Your task to perform on an android device: stop showing notifications on the lock screen Image 0: 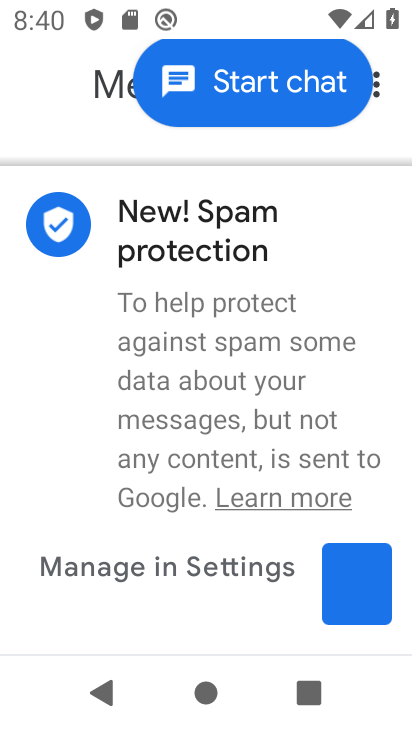
Step 0: press home button
Your task to perform on an android device: stop showing notifications on the lock screen Image 1: 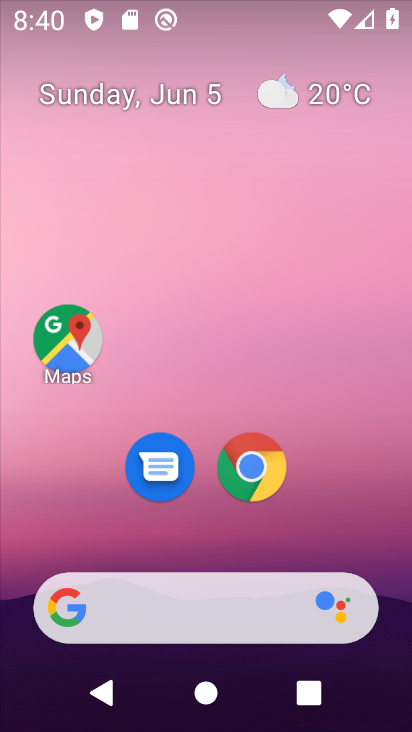
Step 1: drag from (351, 512) to (345, 0)
Your task to perform on an android device: stop showing notifications on the lock screen Image 2: 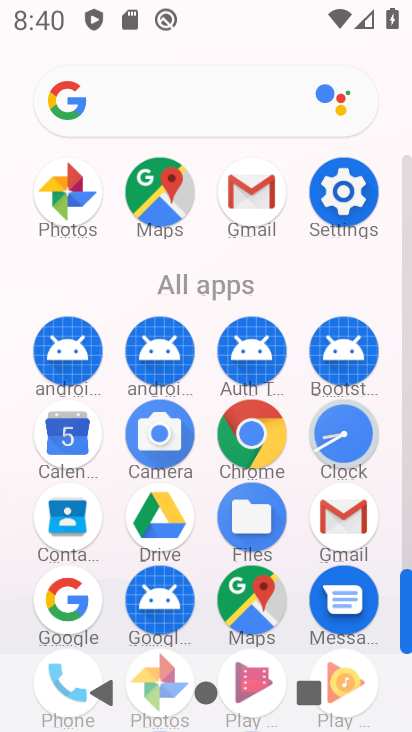
Step 2: click (337, 192)
Your task to perform on an android device: stop showing notifications on the lock screen Image 3: 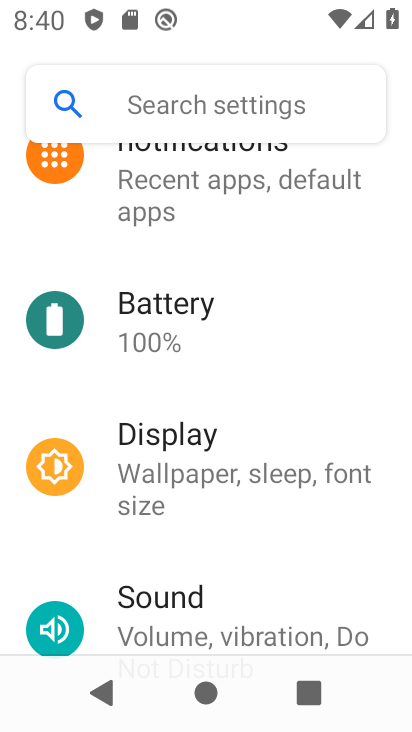
Step 3: drag from (206, 273) to (180, 602)
Your task to perform on an android device: stop showing notifications on the lock screen Image 4: 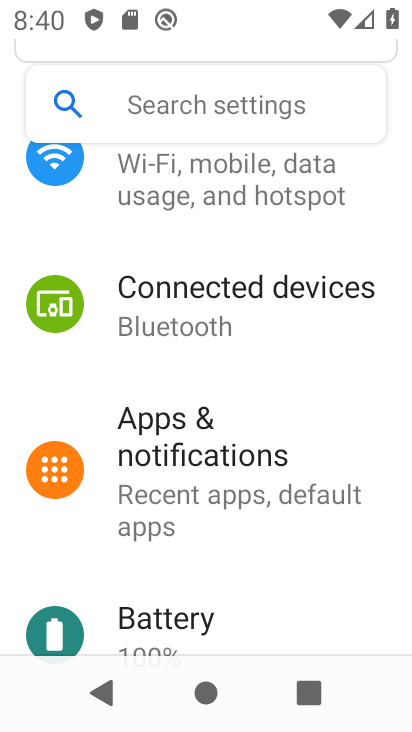
Step 4: click (183, 434)
Your task to perform on an android device: stop showing notifications on the lock screen Image 5: 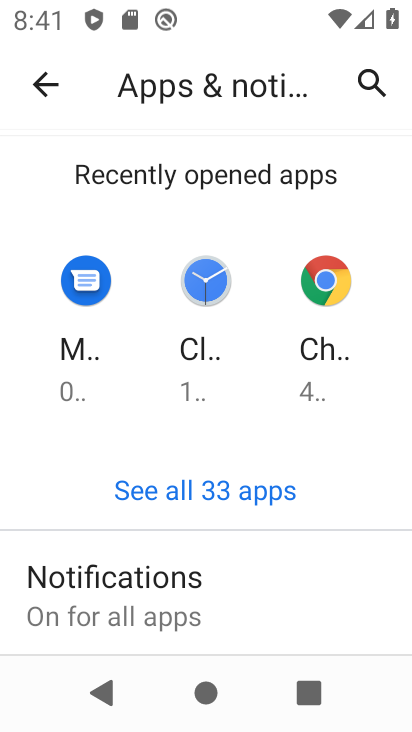
Step 5: click (151, 598)
Your task to perform on an android device: stop showing notifications on the lock screen Image 6: 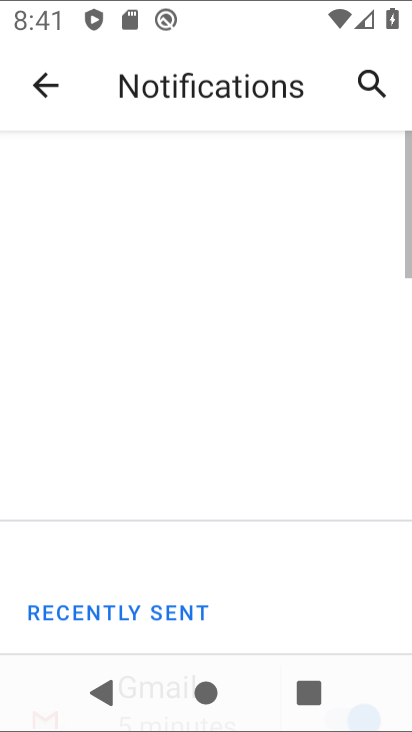
Step 6: drag from (156, 606) to (187, 176)
Your task to perform on an android device: stop showing notifications on the lock screen Image 7: 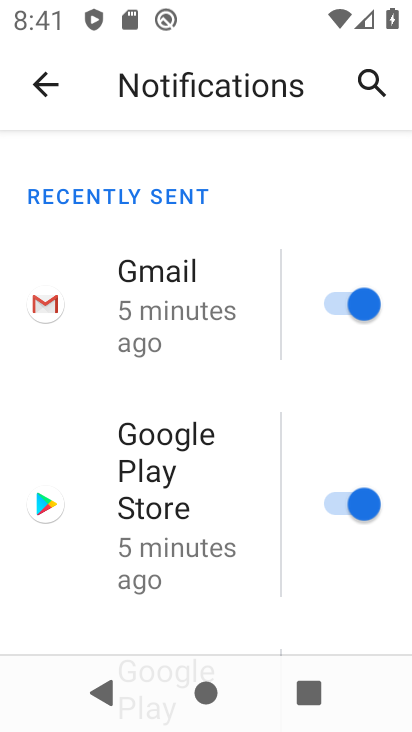
Step 7: drag from (94, 609) to (178, 10)
Your task to perform on an android device: stop showing notifications on the lock screen Image 8: 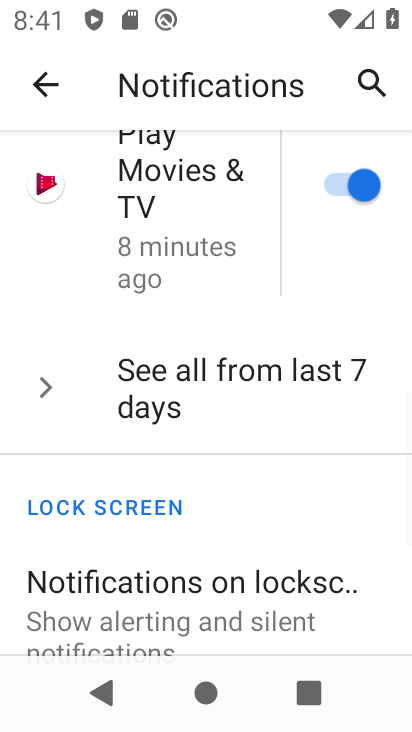
Step 8: drag from (147, 518) to (149, 164)
Your task to perform on an android device: stop showing notifications on the lock screen Image 9: 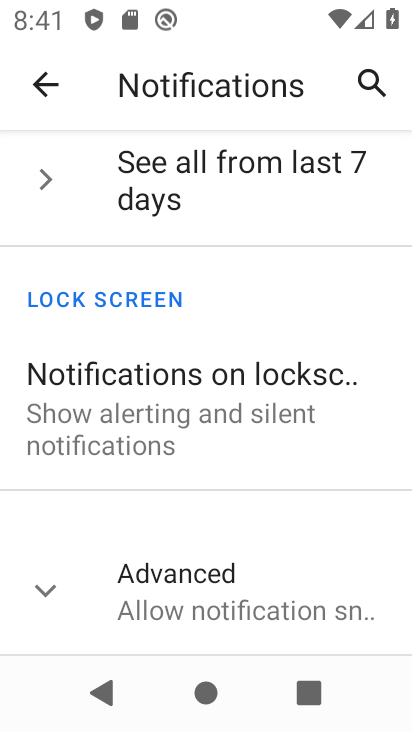
Step 9: click (191, 442)
Your task to perform on an android device: stop showing notifications on the lock screen Image 10: 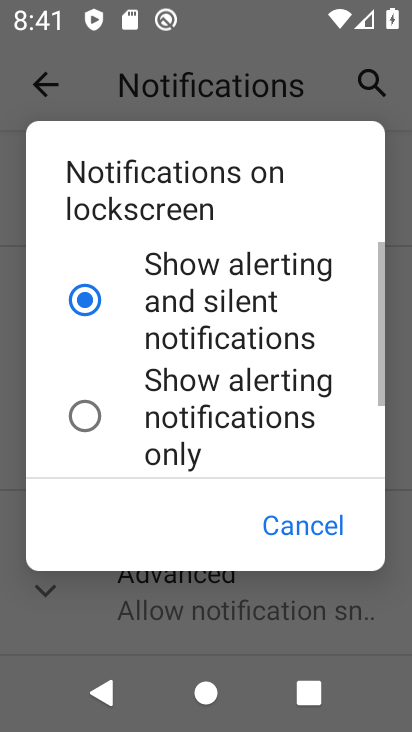
Step 10: drag from (220, 422) to (210, 115)
Your task to perform on an android device: stop showing notifications on the lock screen Image 11: 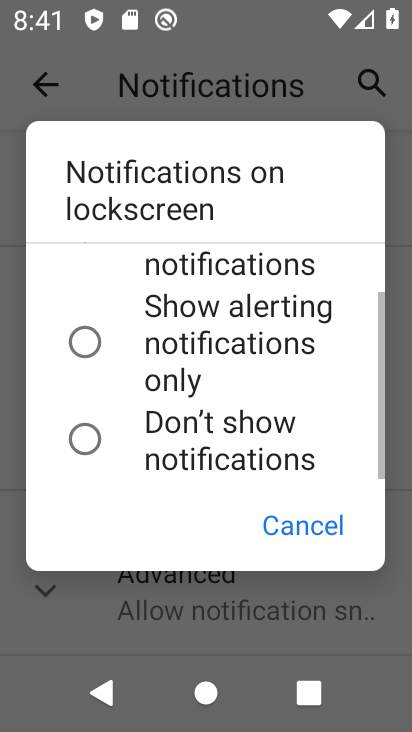
Step 11: click (154, 464)
Your task to perform on an android device: stop showing notifications on the lock screen Image 12: 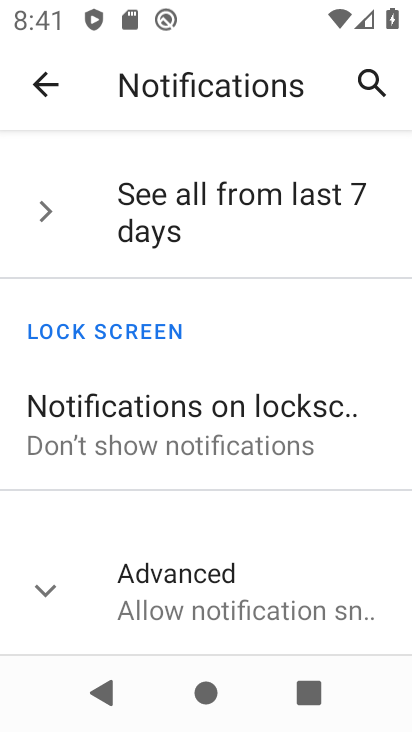
Step 12: task complete